Your task to perform on an android device: Show the shopping cart on amazon. Search for acer nitro on amazon, select the first entry, add it to the cart, then select checkout. Image 0: 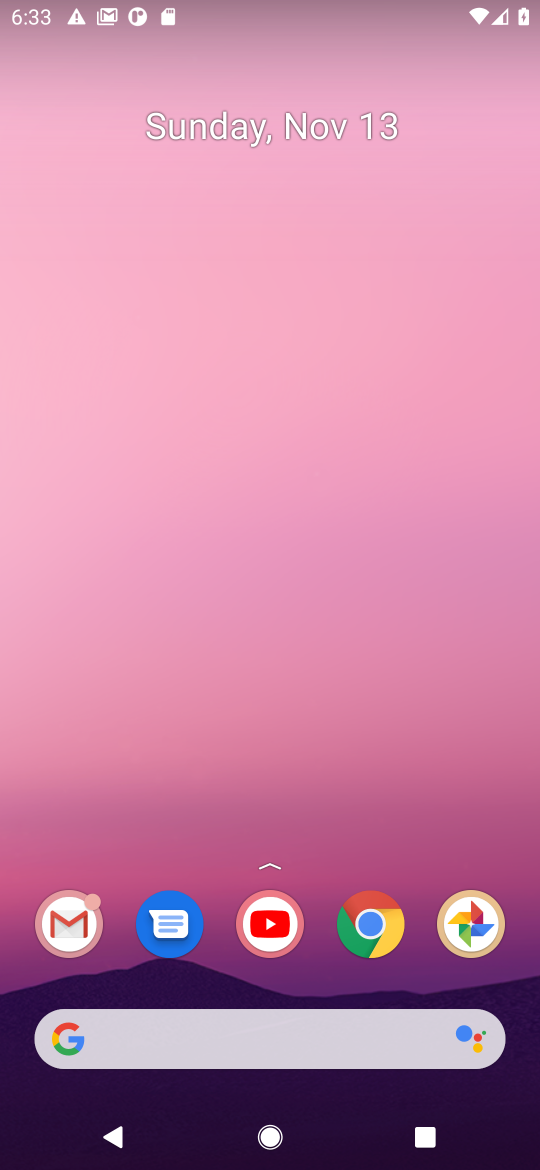
Step 0: click (350, 931)
Your task to perform on an android device: Show the shopping cart on amazon. Search for acer nitro on amazon, select the first entry, add it to the cart, then select checkout. Image 1: 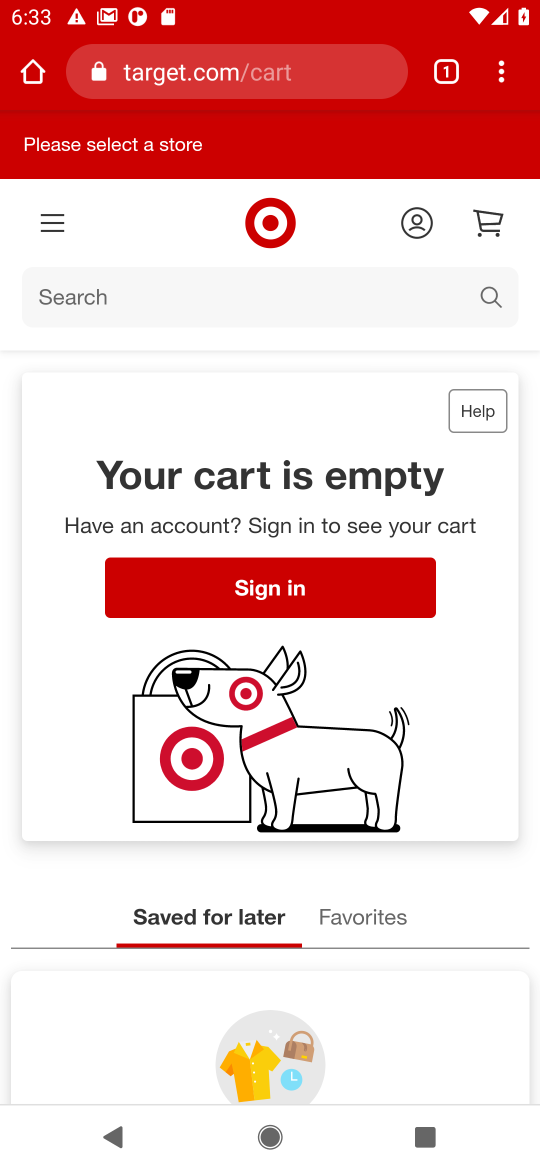
Step 1: click (208, 80)
Your task to perform on an android device: Show the shopping cart on amazon. Search for acer nitro on amazon, select the first entry, add it to the cart, then select checkout. Image 2: 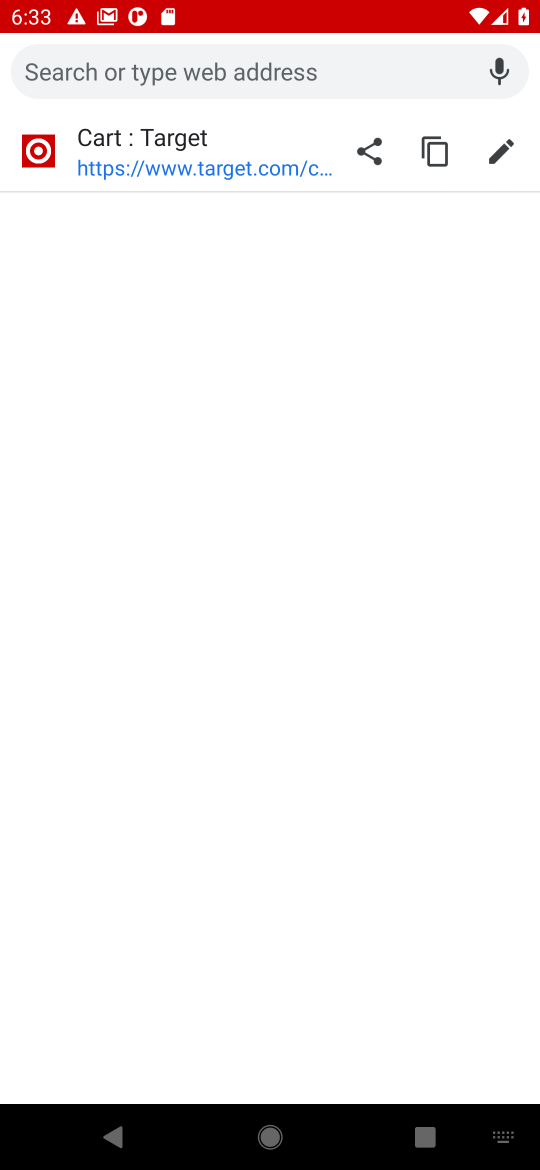
Step 2: type "amazon.com"
Your task to perform on an android device: Show the shopping cart on amazon. Search for acer nitro on amazon, select the first entry, add it to the cart, then select checkout. Image 3: 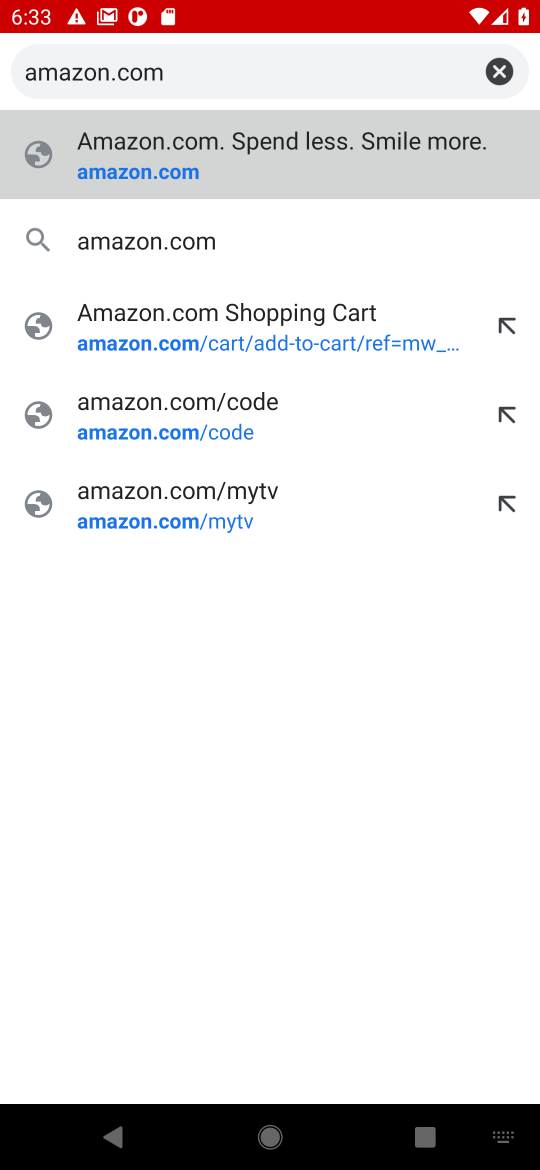
Step 3: click (161, 176)
Your task to perform on an android device: Show the shopping cart on amazon. Search for acer nitro on amazon, select the first entry, add it to the cart, then select checkout. Image 4: 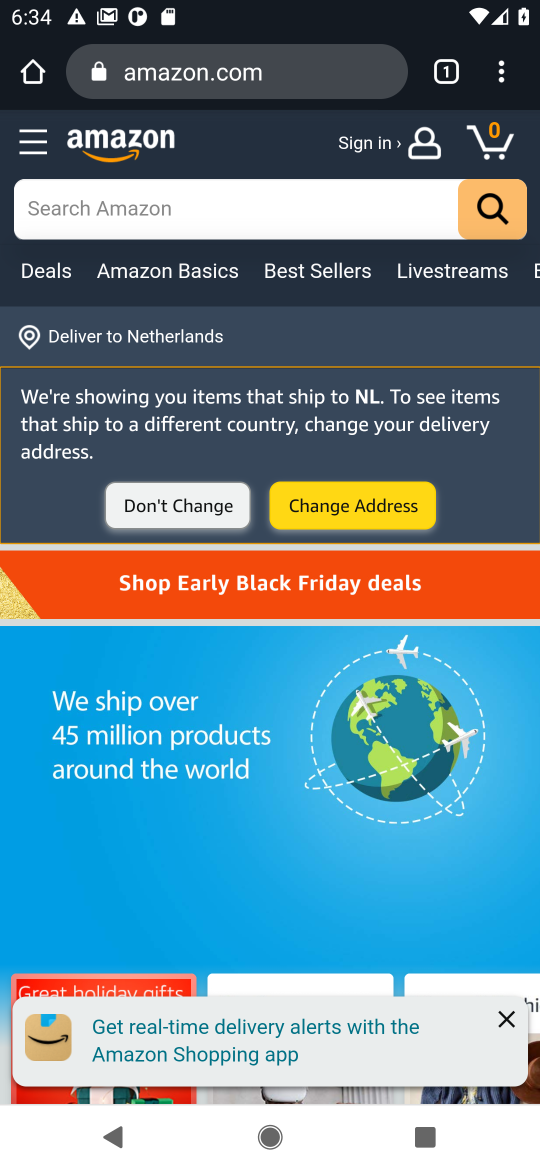
Step 4: click (499, 144)
Your task to perform on an android device: Show the shopping cart on amazon. Search for acer nitro on amazon, select the first entry, add it to the cart, then select checkout. Image 5: 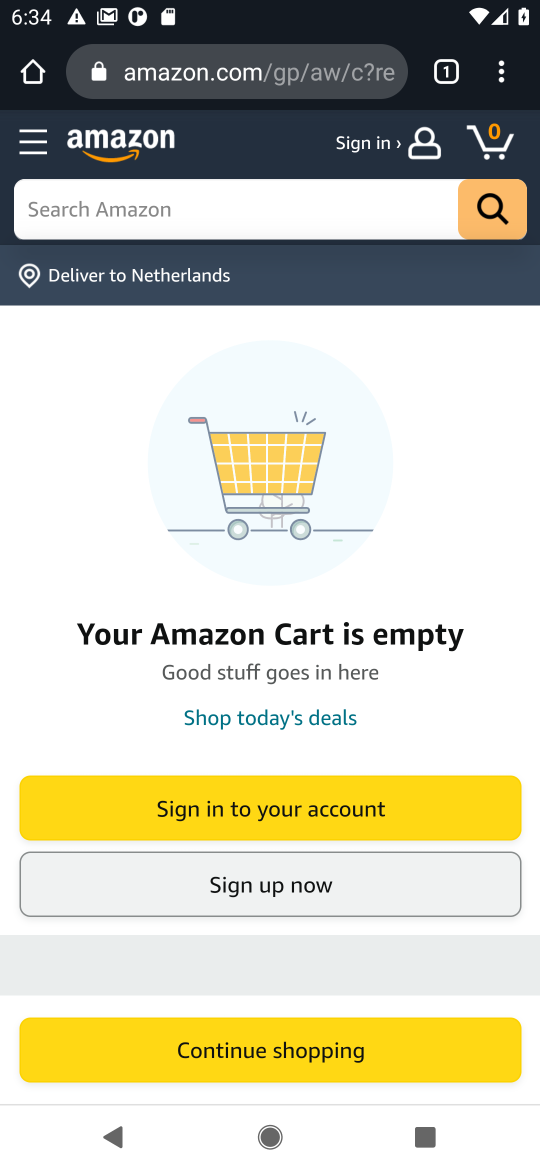
Step 5: click (289, 200)
Your task to perform on an android device: Show the shopping cart on amazon. Search for acer nitro on amazon, select the first entry, add it to the cart, then select checkout. Image 6: 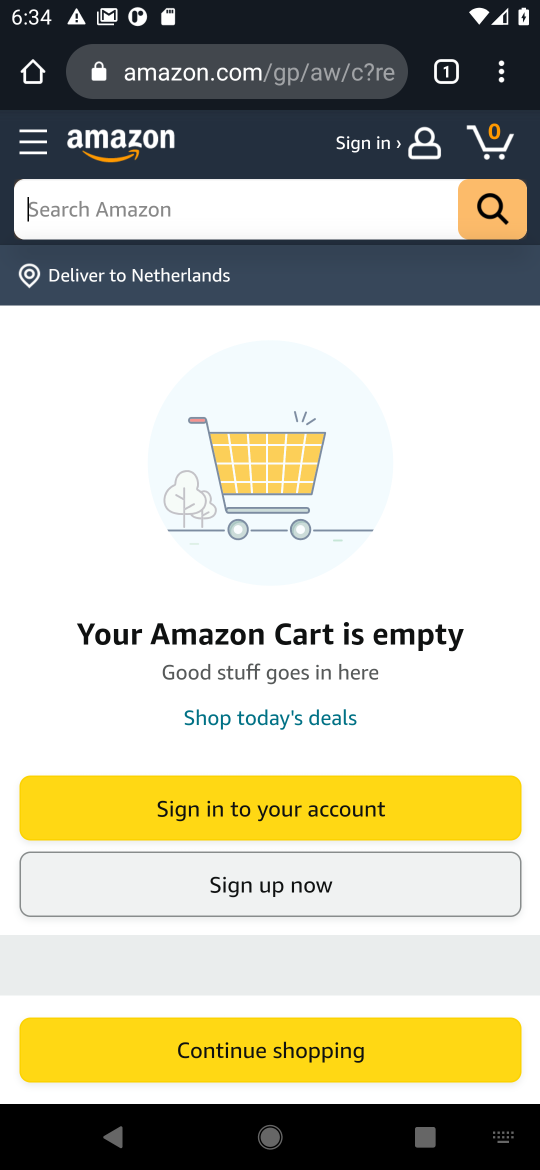
Step 6: type "acer nitro "
Your task to perform on an android device: Show the shopping cart on amazon. Search for acer nitro on amazon, select the first entry, add it to the cart, then select checkout. Image 7: 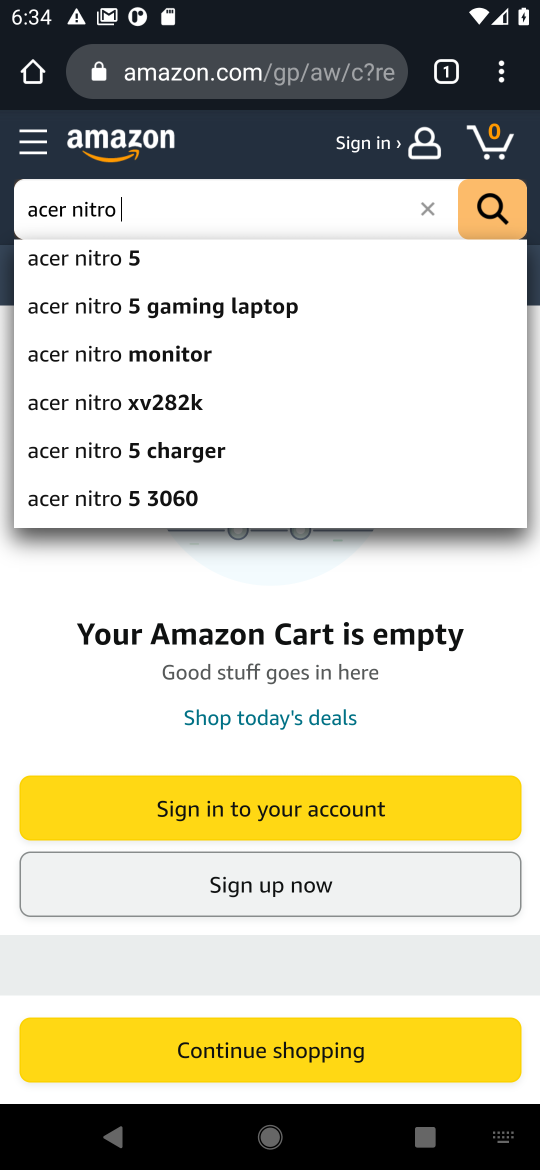
Step 7: click (484, 212)
Your task to perform on an android device: Show the shopping cart on amazon. Search for acer nitro on amazon, select the first entry, add it to the cart, then select checkout. Image 8: 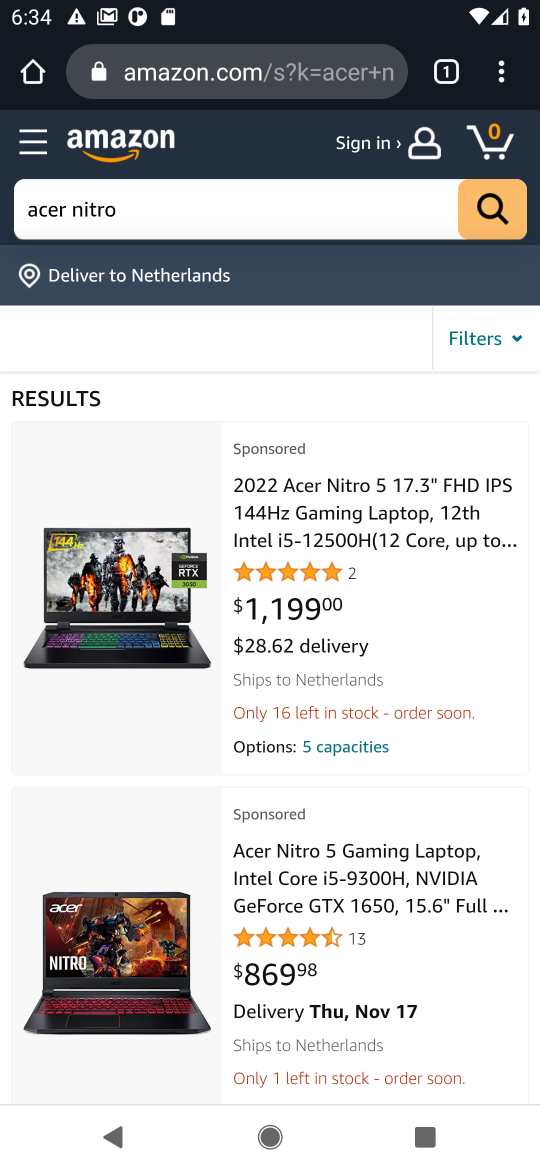
Step 8: click (98, 595)
Your task to perform on an android device: Show the shopping cart on amazon. Search for acer nitro on amazon, select the first entry, add it to the cart, then select checkout. Image 9: 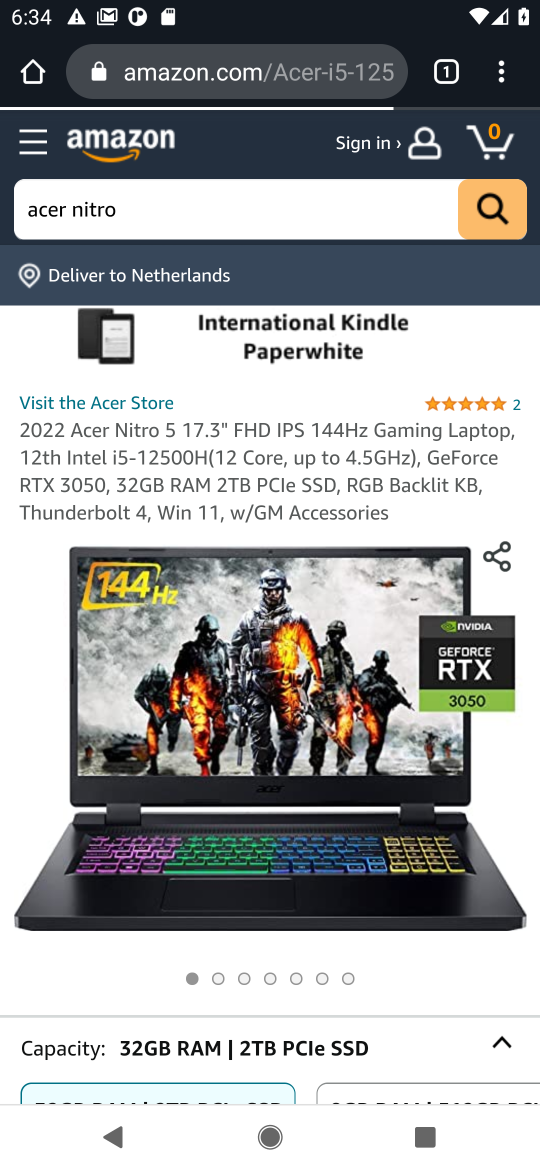
Step 9: drag from (191, 715) to (203, 307)
Your task to perform on an android device: Show the shopping cart on amazon. Search for acer nitro on amazon, select the first entry, add it to the cart, then select checkout. Image 10: 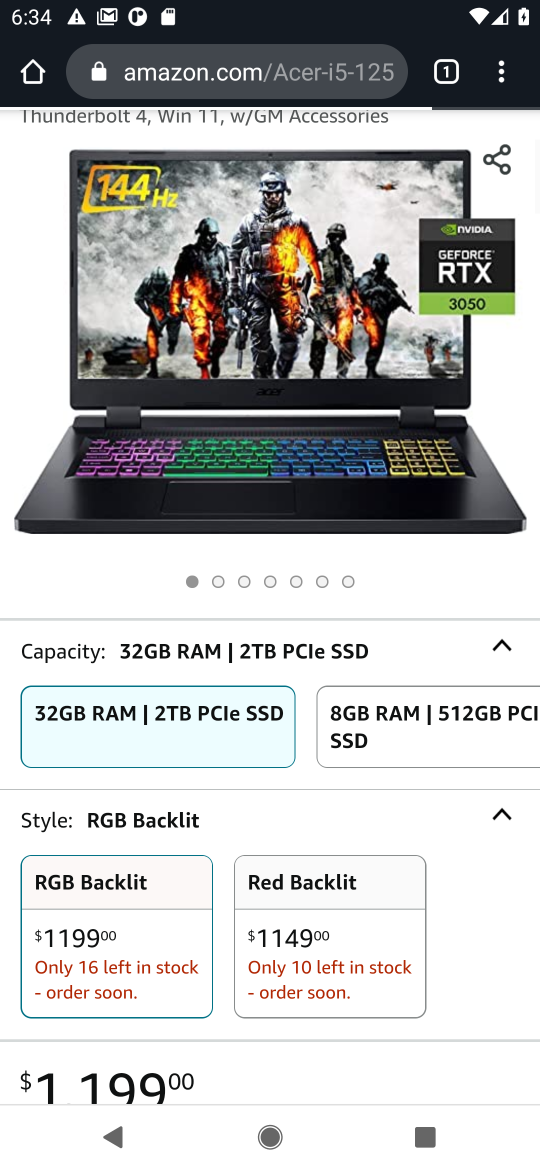
Step 10: drag from (225, 822) to (236, 329)
Your task to perform on an android device: Show the shopping cart on amazon. Search for acer nitro on amazon, select the first entry, add it to the cart, then select checkout. Image 11: 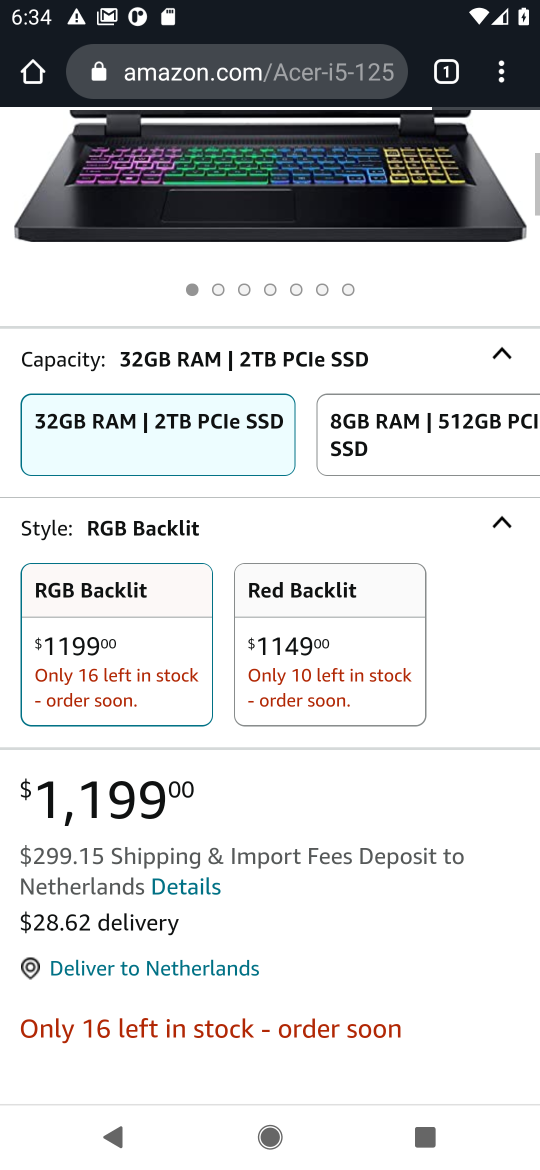
Step 11: drag from (257, 872) to (225, 356)
Your task to perform on an android device: Show the shopping cart on amazon. Search for acer nitro on amazon, select the first entry, add it to the cart, then select checkout. Image 12: 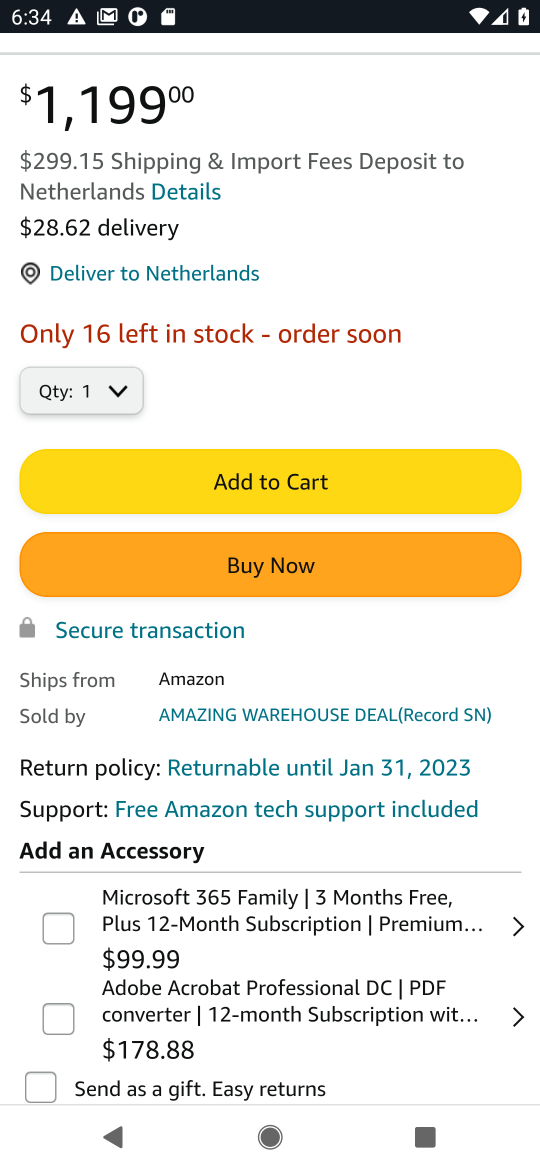
Step 12: click (288, 491)
Your task to perform on an android device: Show the shopping cart on amazon. Search for acer nitro on amazon, select the first entry, add it to the cart, then select checkout. Image 13: 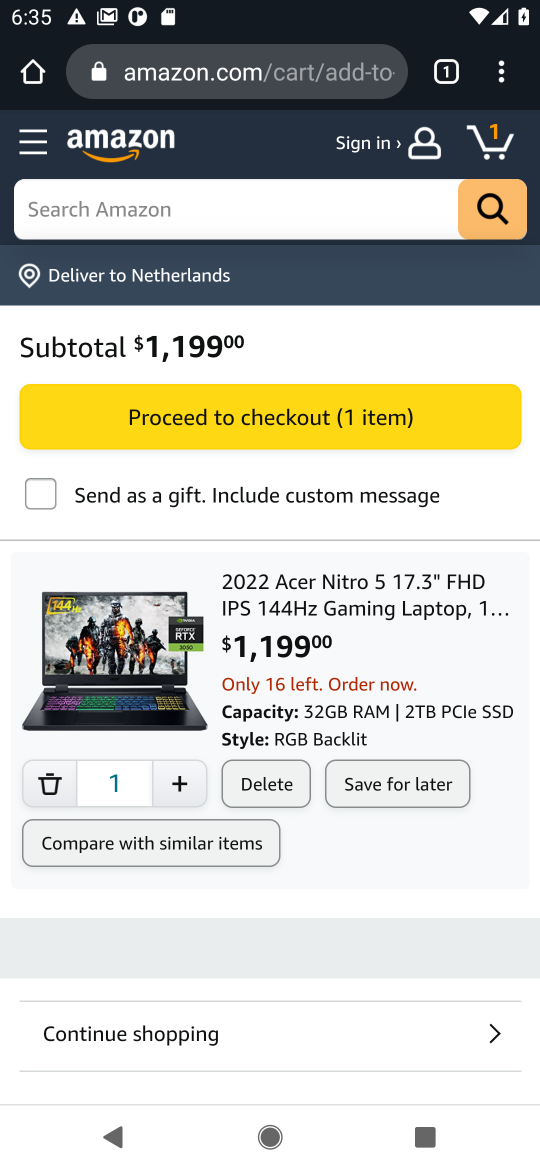
Step 13: click (266, 419)
Your task to perform on an android device: Show the shopping cart on amazon. Search for acer nitro on amazon, select the first entry, add it to the cart, then select checkout. Image 14: 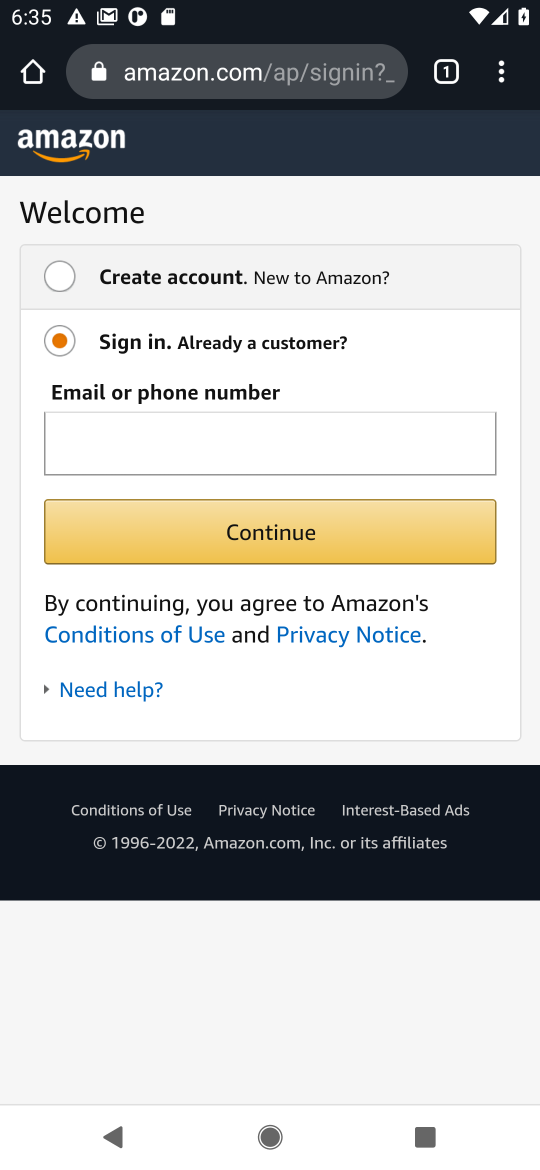
Step 14: task complete